Your task to perform on an android device: snooze an email in the gmail app Image 0: 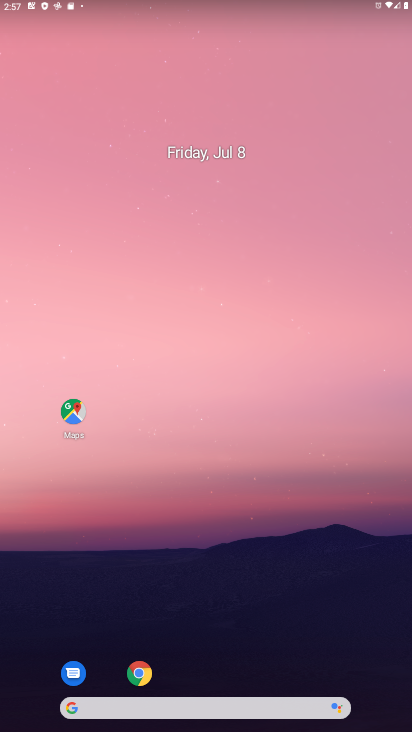
Step 0: drag from (395, 707) to (372, 192)
Your task to perform on an android device: snooze an email in the gmail app Image 1: 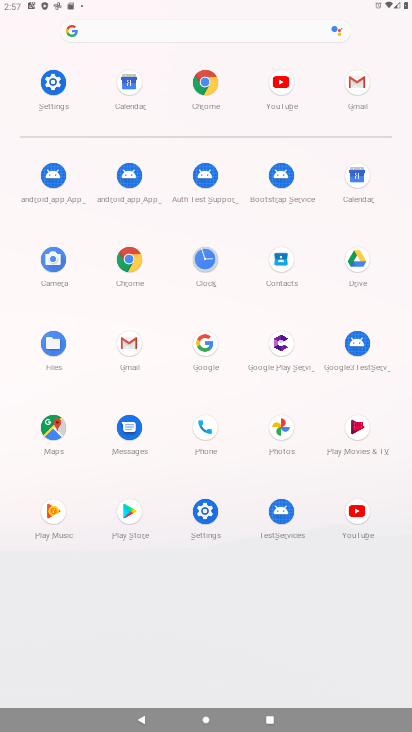
Step 1: click (131, 342)
Your task to perform on an android device: snooze an email in the gmail app Image 2: 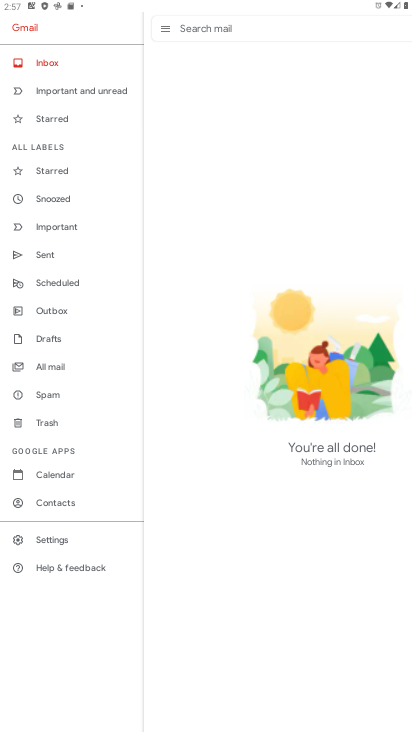
Step 2: task complete